Your task to perform on an android device: Add rayovac triple a to the cart on costco.com Image 0: 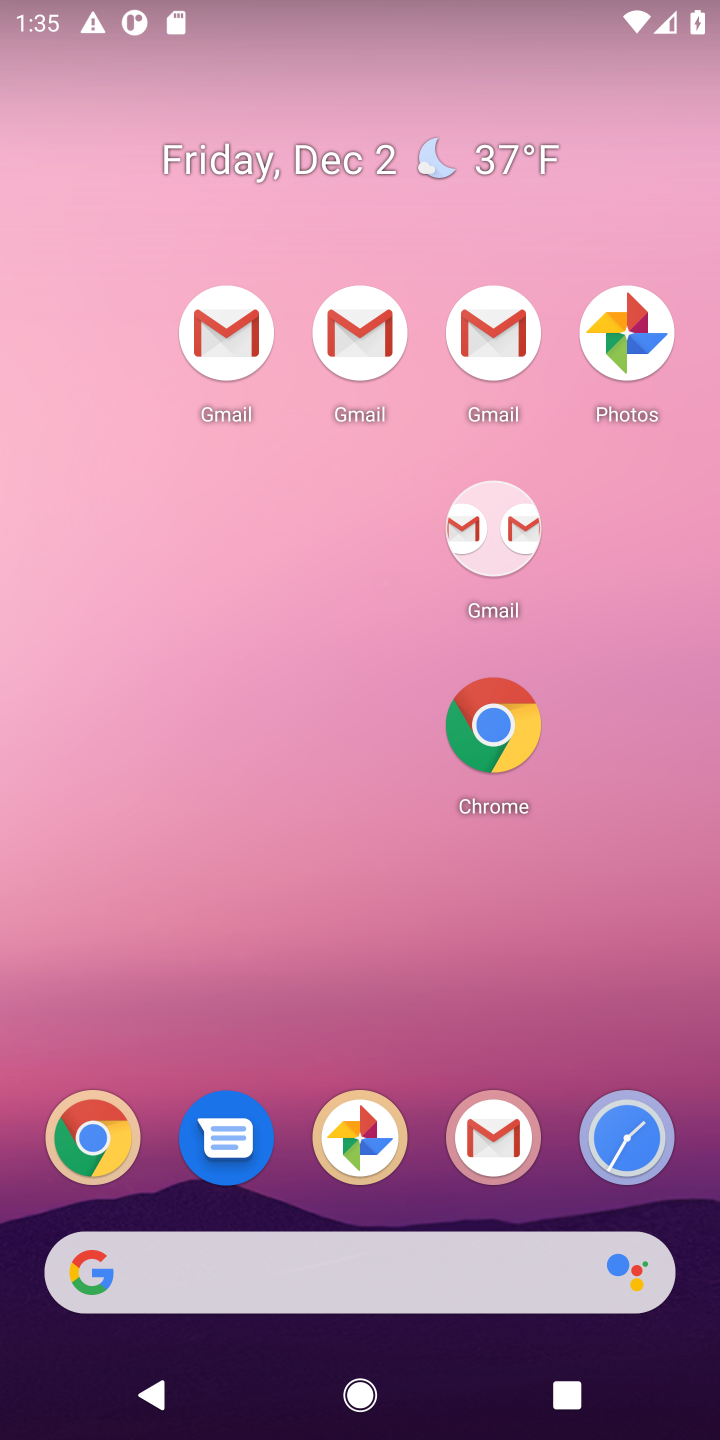
Step 0: drag from (396, 1186) to (391, 260)
Your task to perform on an android device: Add rayovac triple a to the cart on costco.com Image 1: 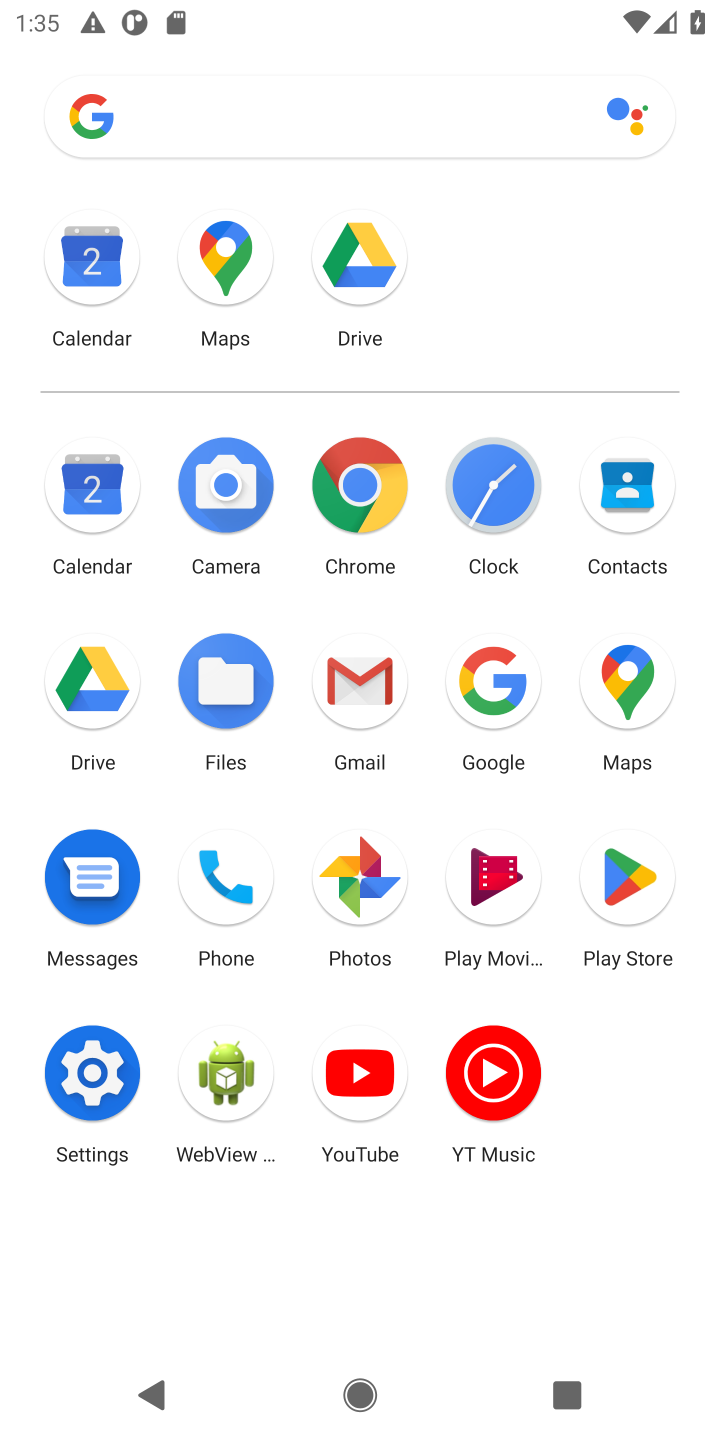
Step 1: click (477, 715)
Your task to perform on an android device: Add rayovac triple a to the cart on costco.com Image 2: 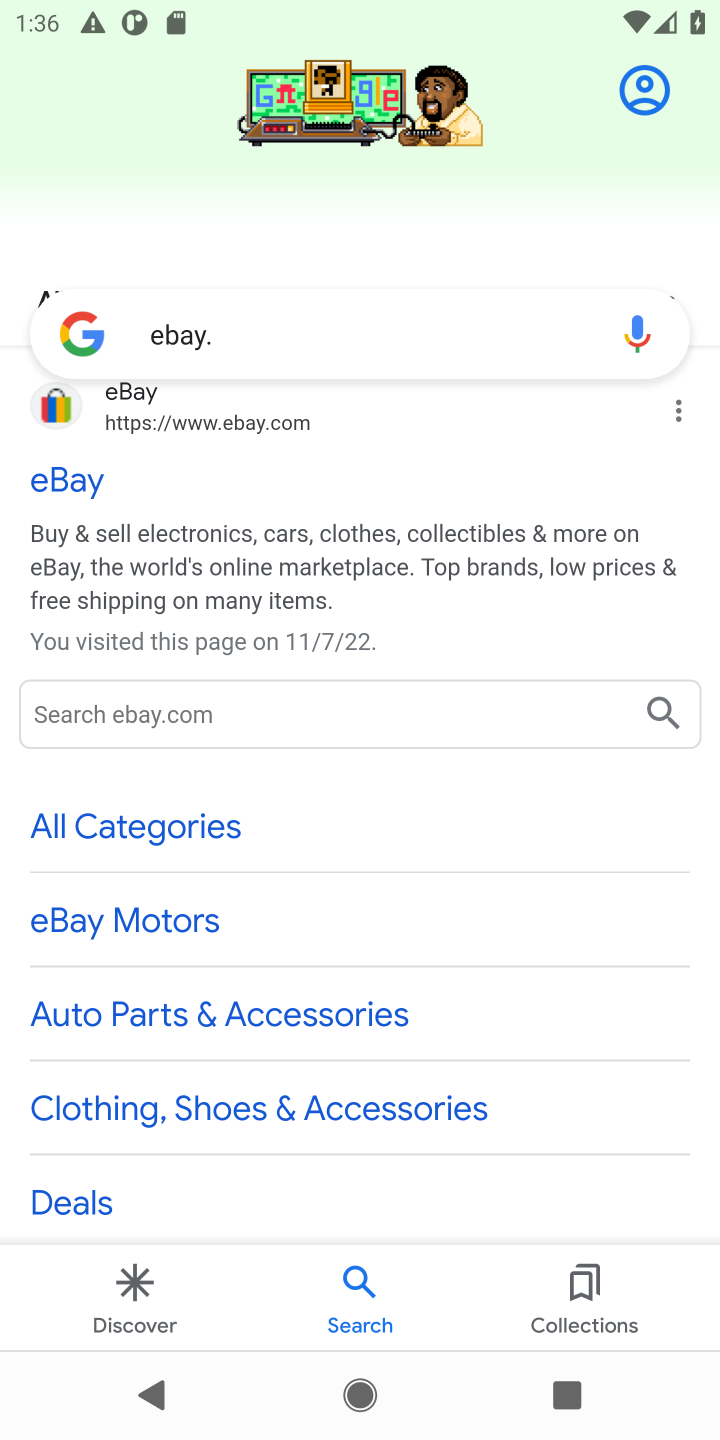
Step 2: click (473, 336)
Your task to perform on an android device: Add rayovac triple a to the cart on costco.com Image 3: 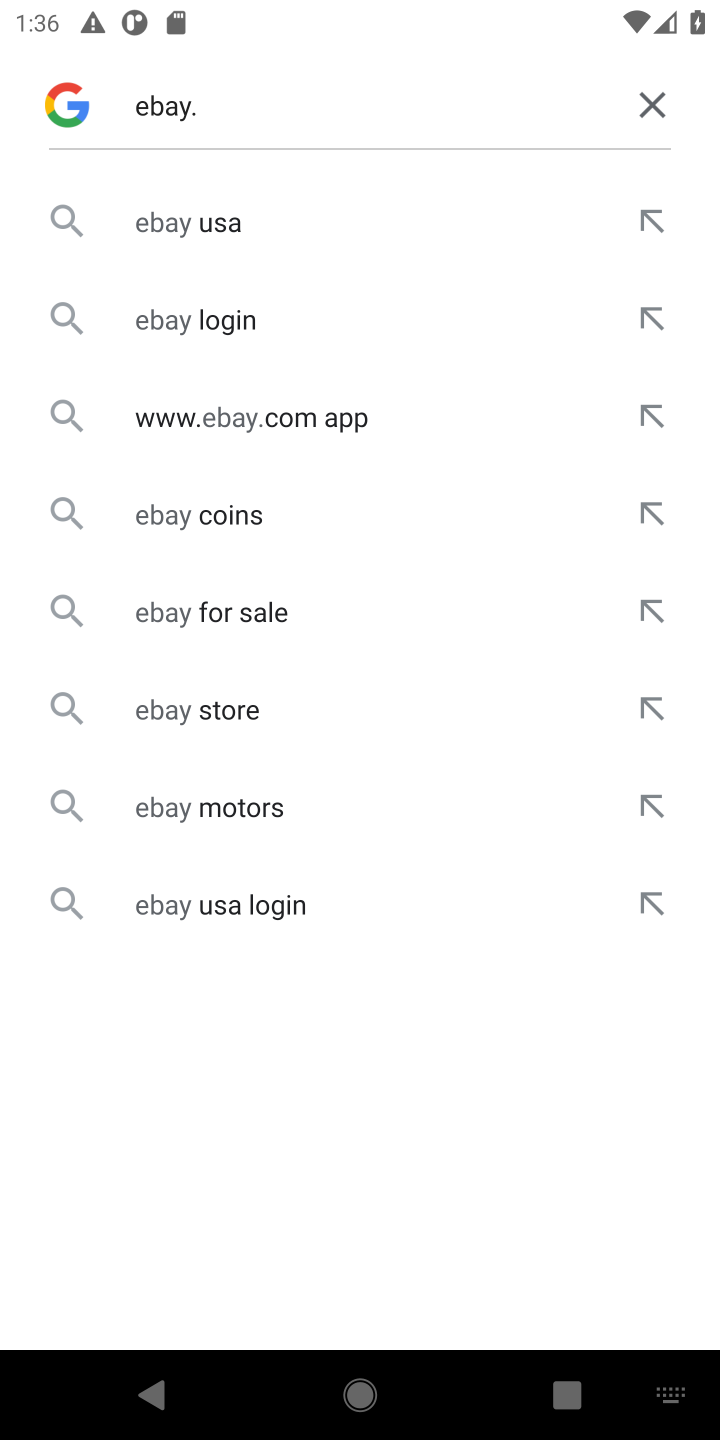
Step 3: click (661, 100)
Your task to perform on an android device: Add rayovac triple a to the cart on costco.com Image 4: 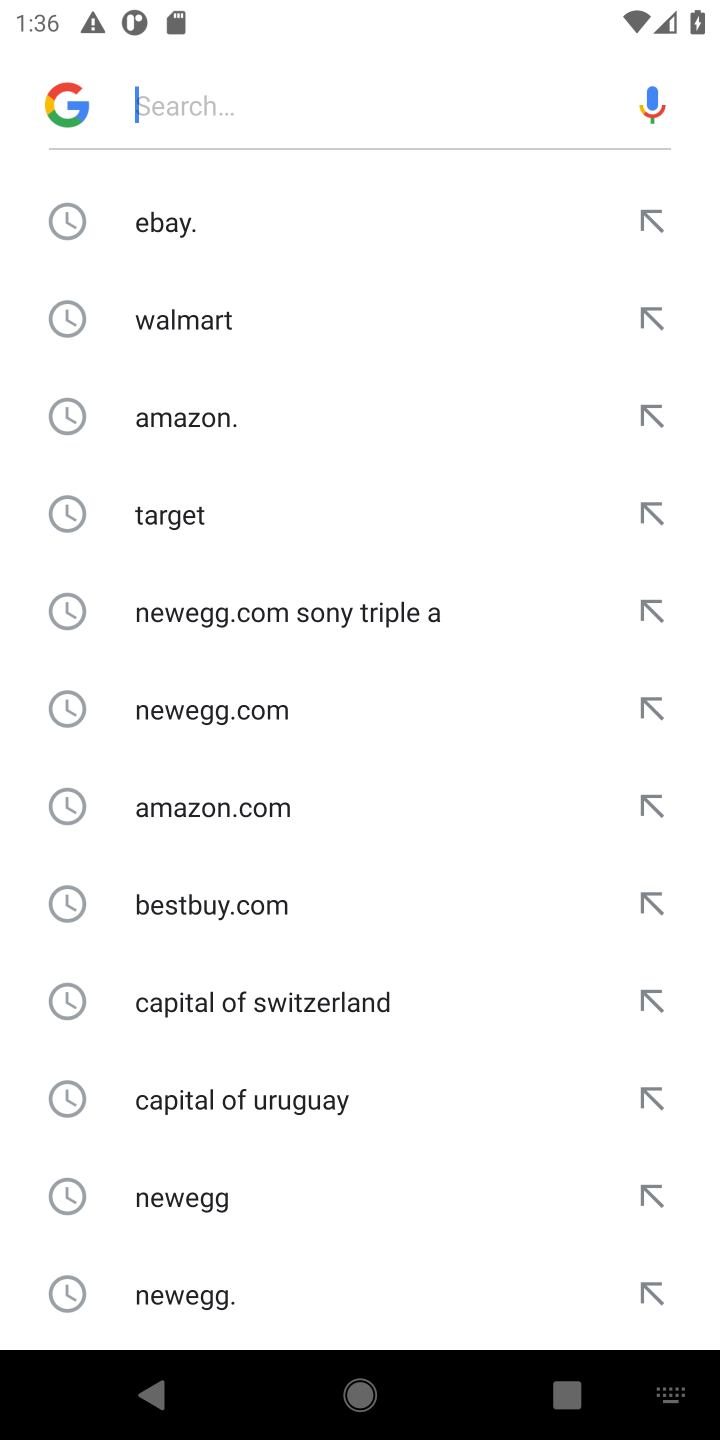
Step 4: type "costco.com"
Your task to perform on an android device: Add rayovac triple a to the cart on costco.com Image 5: 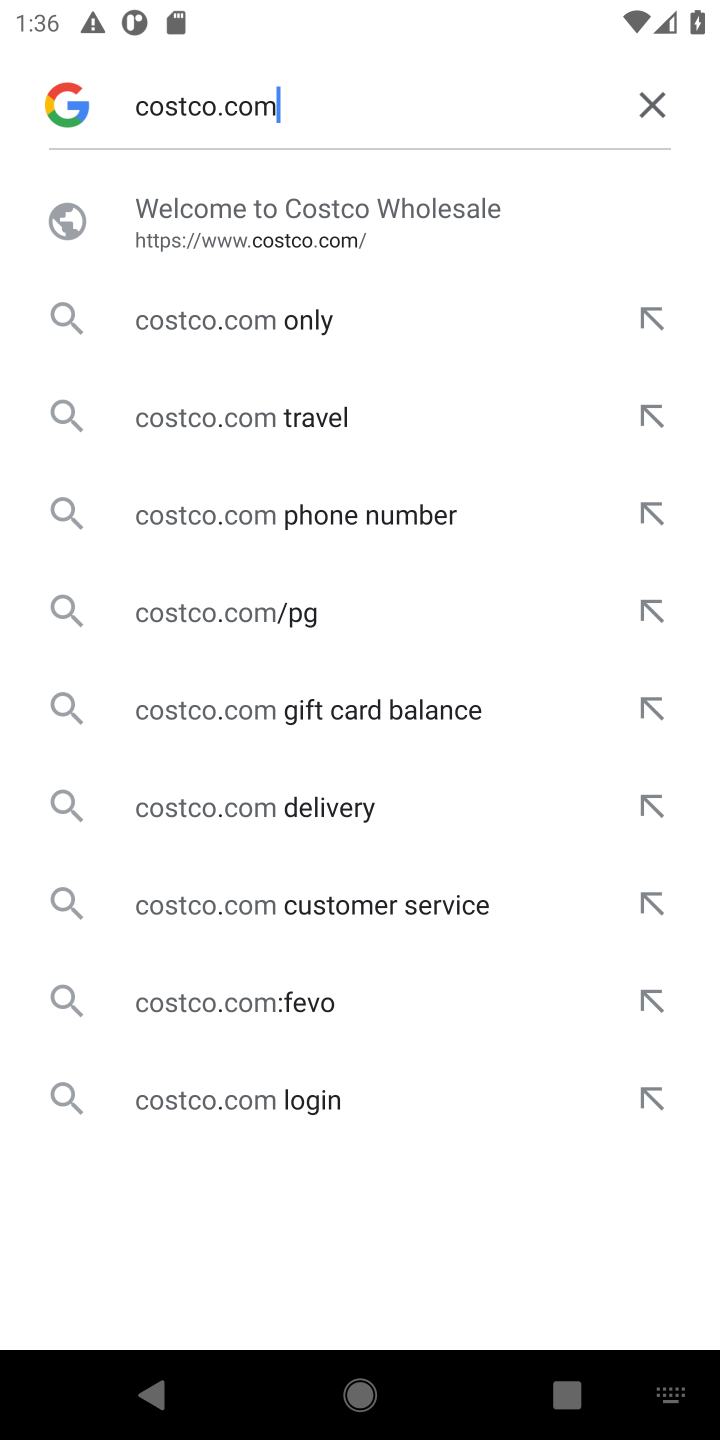
Step 5: click (337, 246)
Your task to perform on an android device: Add rayovac triple a to the cart on costco.com Image 6: 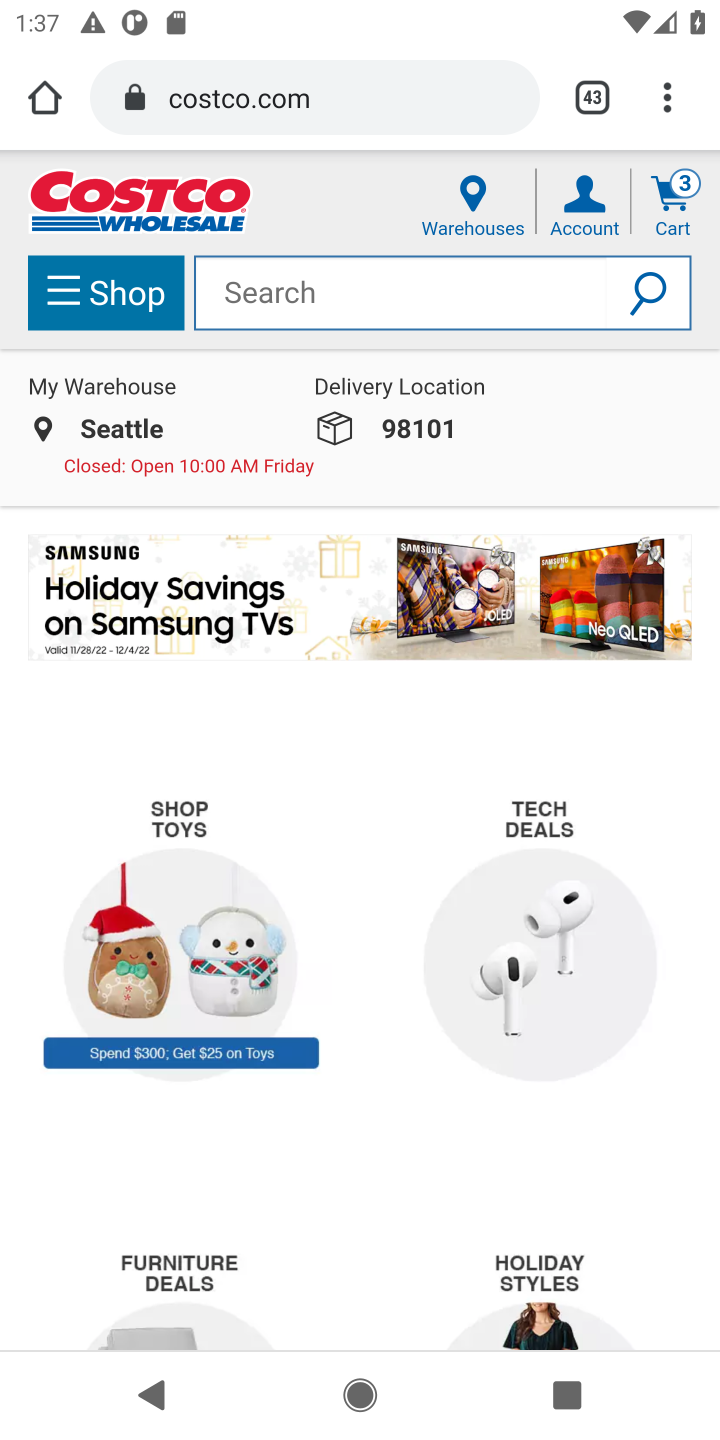
Step 6: click (453, 314)
Your task to perform on an android device: Add rayovac triple a to the cart on costco.com Image 7: 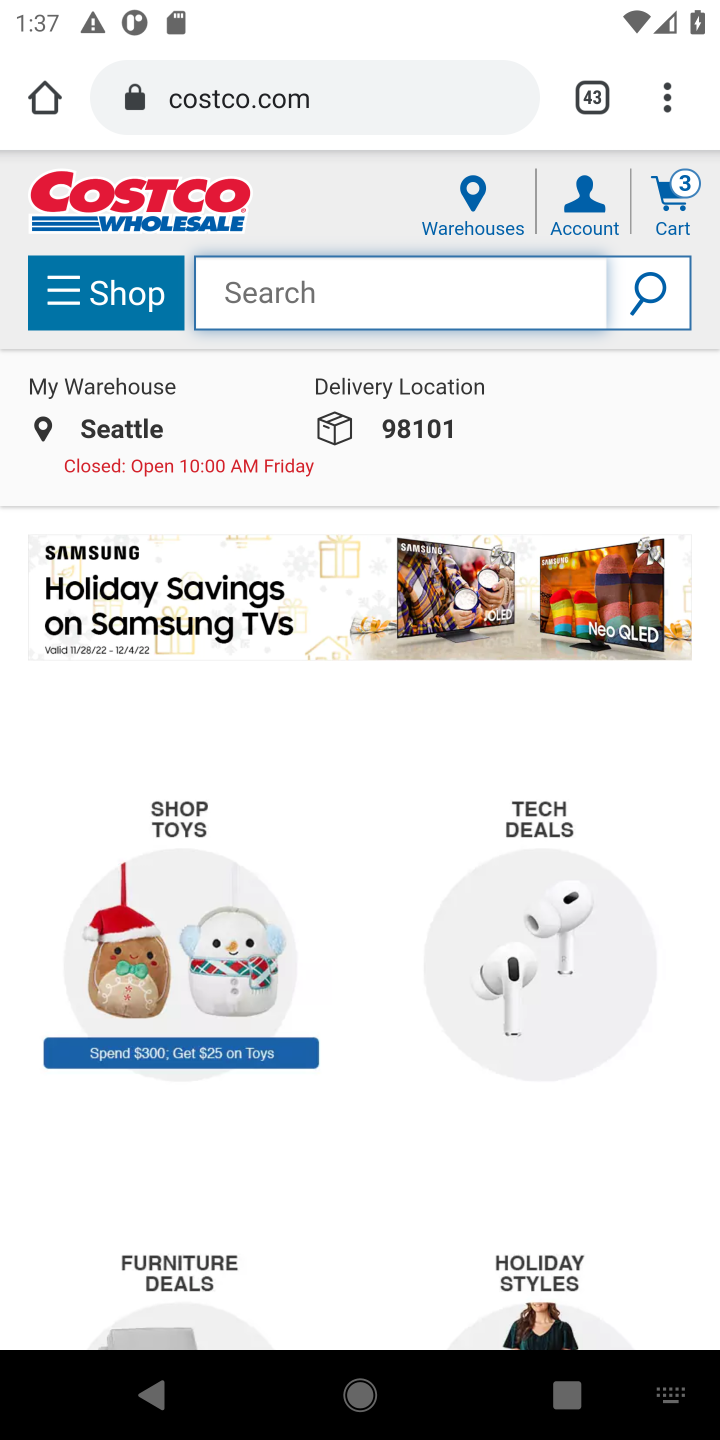
Step 7: type "rayovac triple a"
Your task to perform on an android device: Add rayovac triple a to the cart on costco.com Image 8: 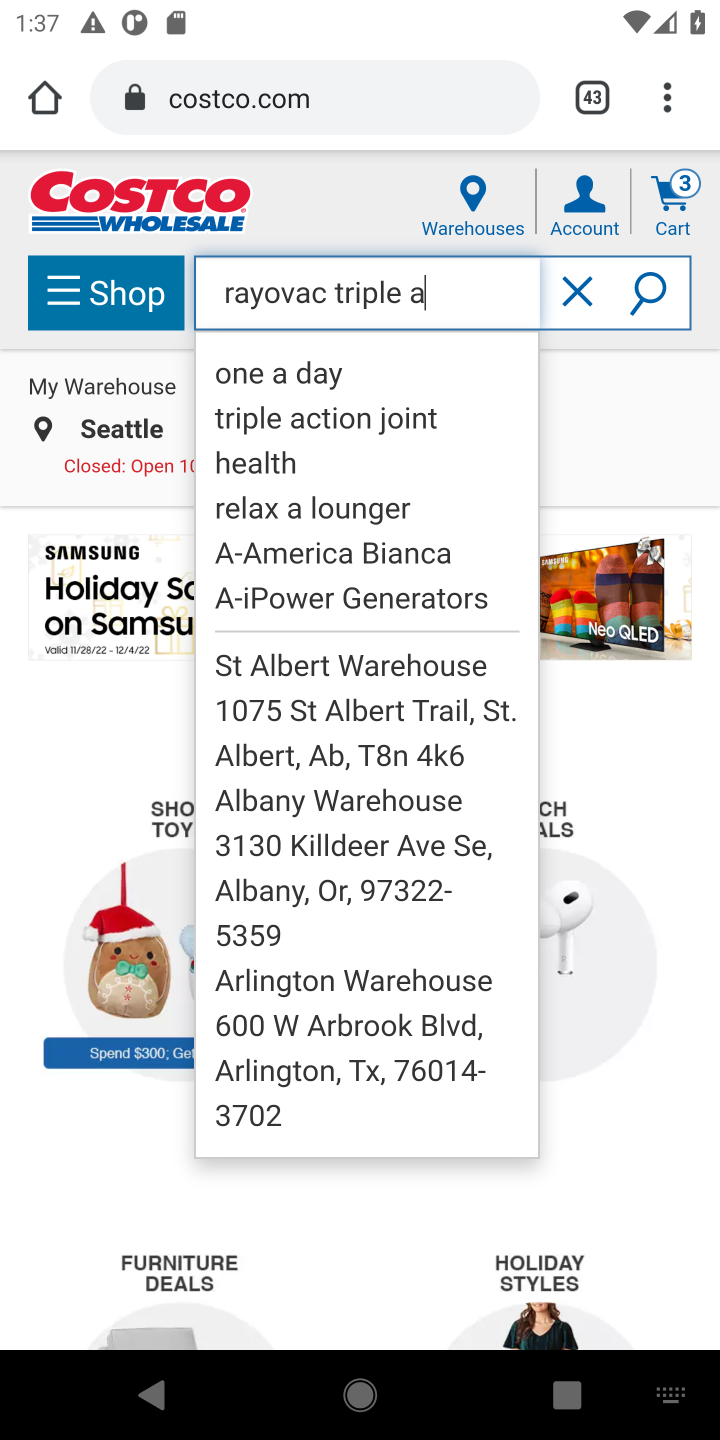
Step 8: click (657, 295)
Your task to perform on an android device: Add rayovac triple a to the cart on costco.com Image 9: 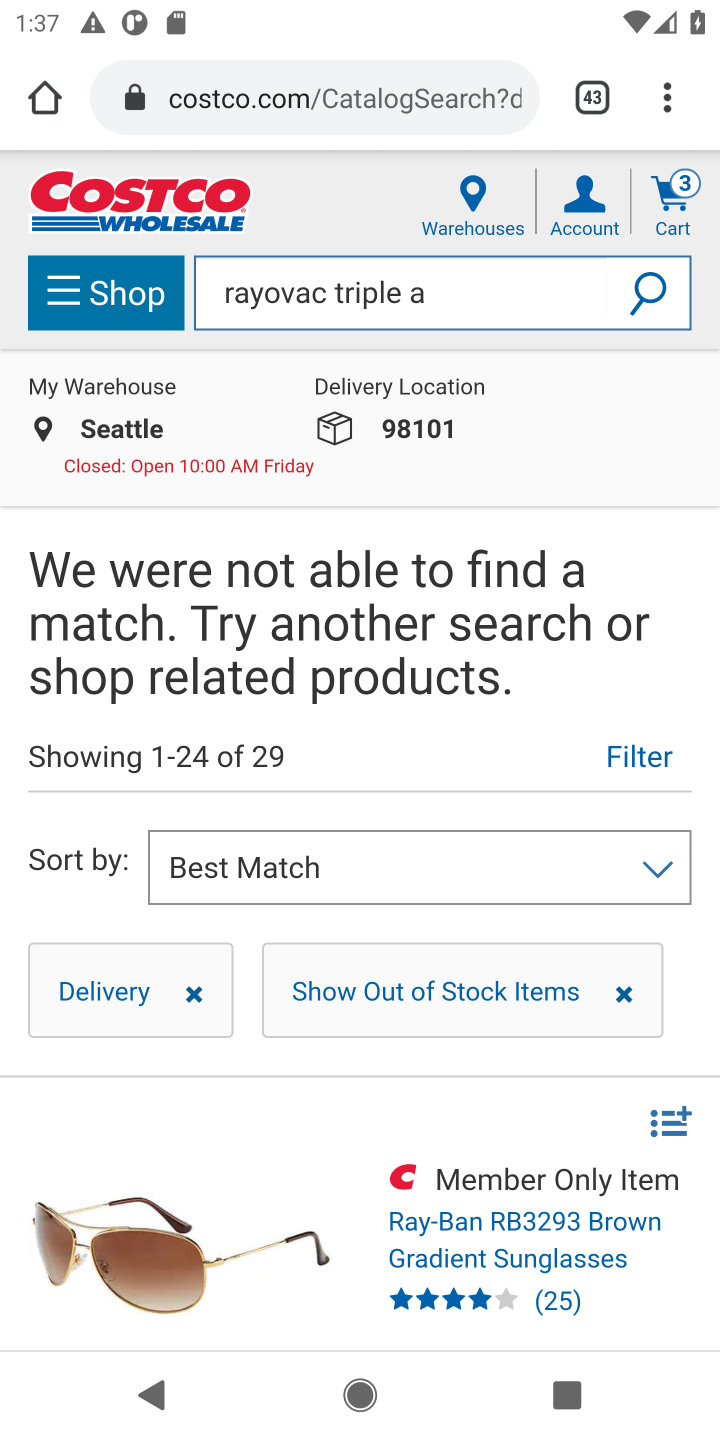
Step 9: task complete